Your task to perform on an android device: Open wifi settings Image 0: 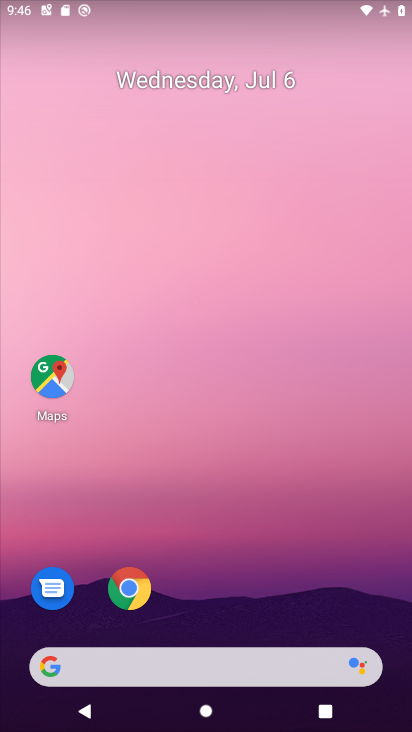
Step 0: drag from (209, 663) to (368, 120)
Your task to perform on an android device: Open wifi settings Image 1: 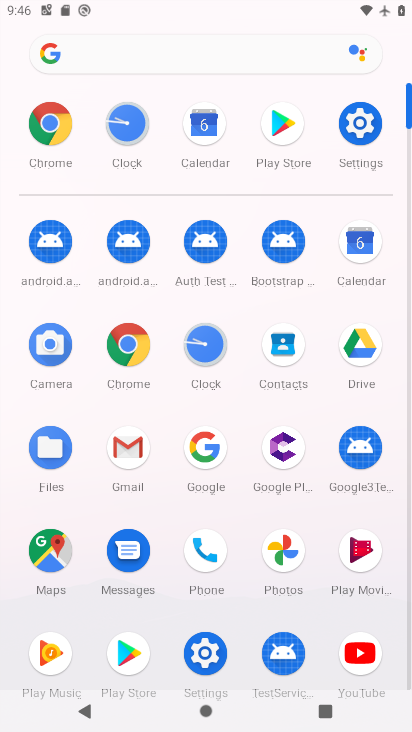
Step 1: click (360, 123)
Your task to perform on an android device: Open wifi settings Image 2: 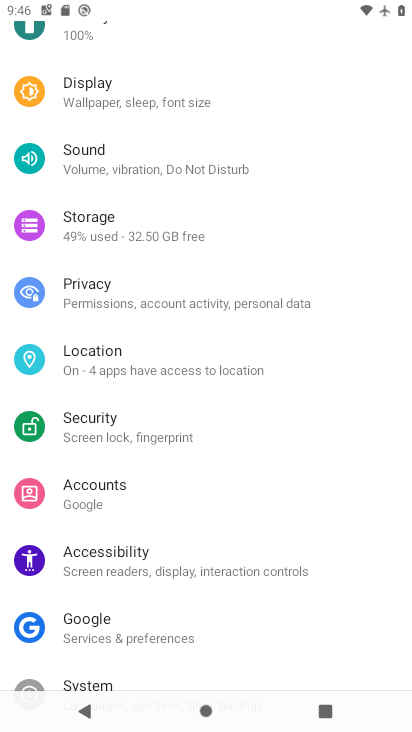
Step 2: drag from (303, 109) to (252, 511)
Your task to perform on an android device: Open wifi settings Image 3: 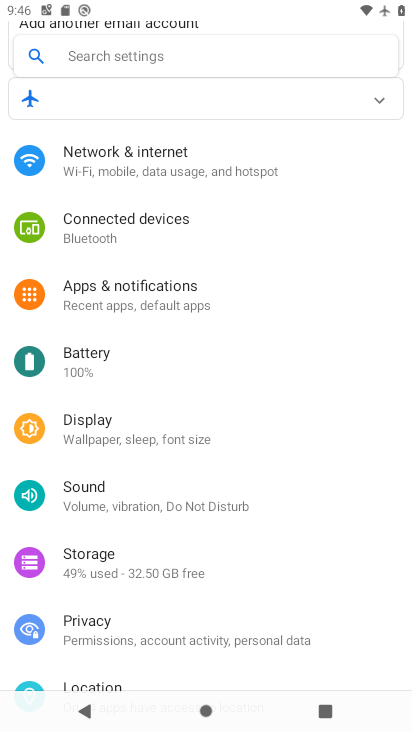
Step 3: click (156, 159)
Your task to perform on an android device: Open wifi settings Image 4: 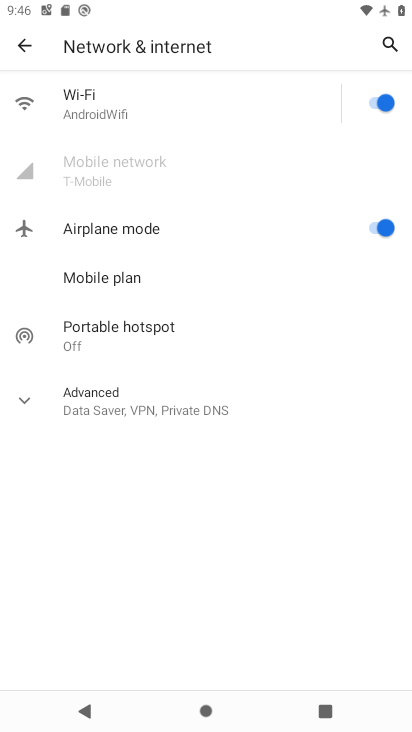
Step 4: click (138, 102)
Your task to perform on an android device: Open wifi settings Image 5: 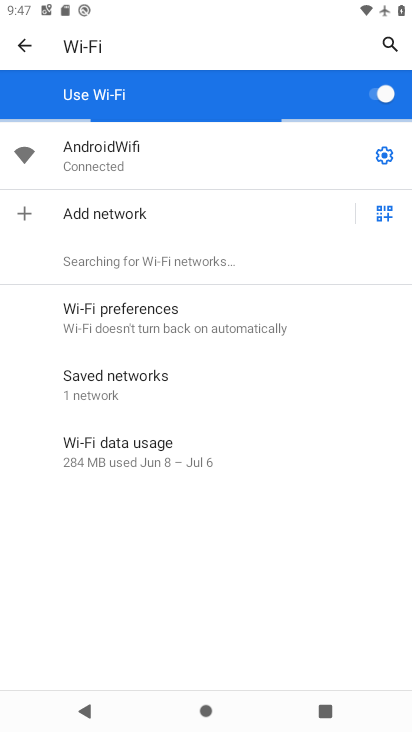
Step 5: task complete